Your task to perform on an android device: Open eBay Image 0: 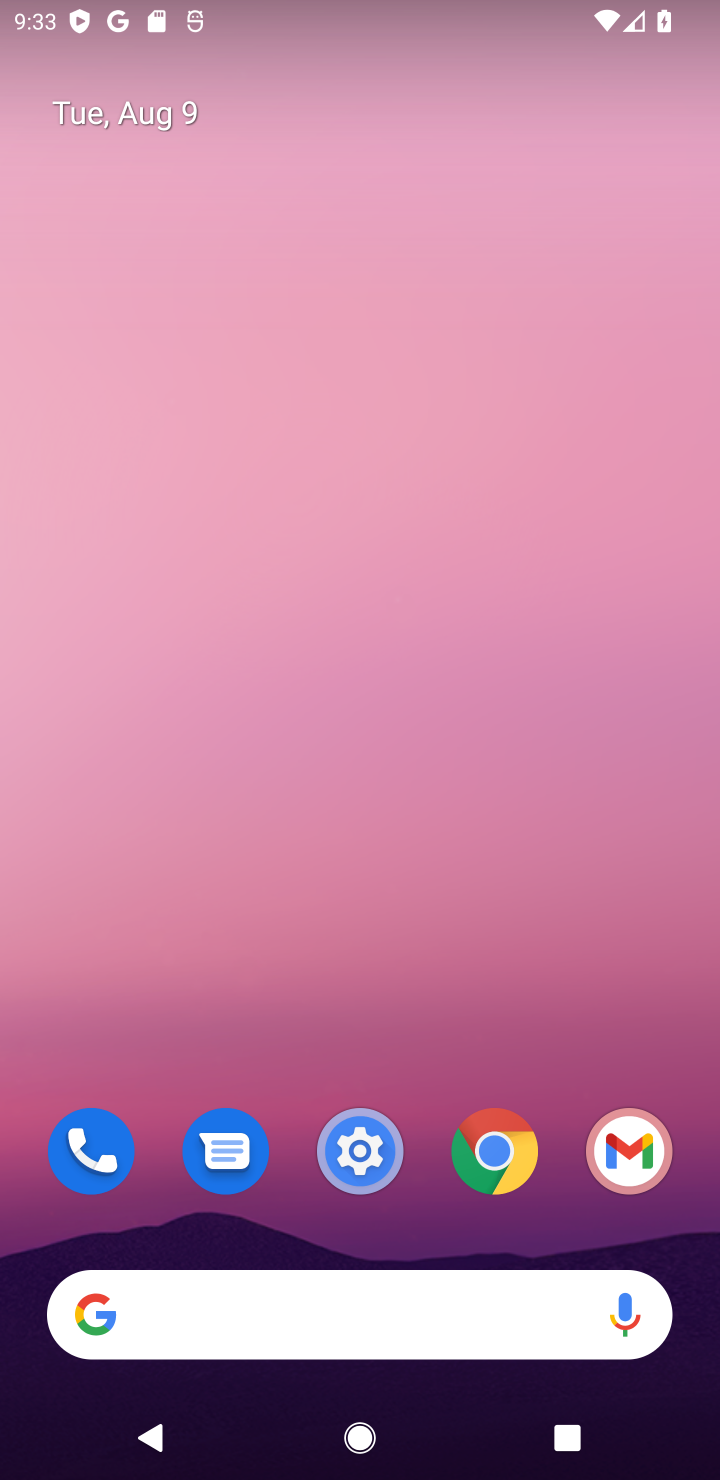
Step 0: click (467, 1150)
Your task to perform on an android device: Open eBay Image 1: 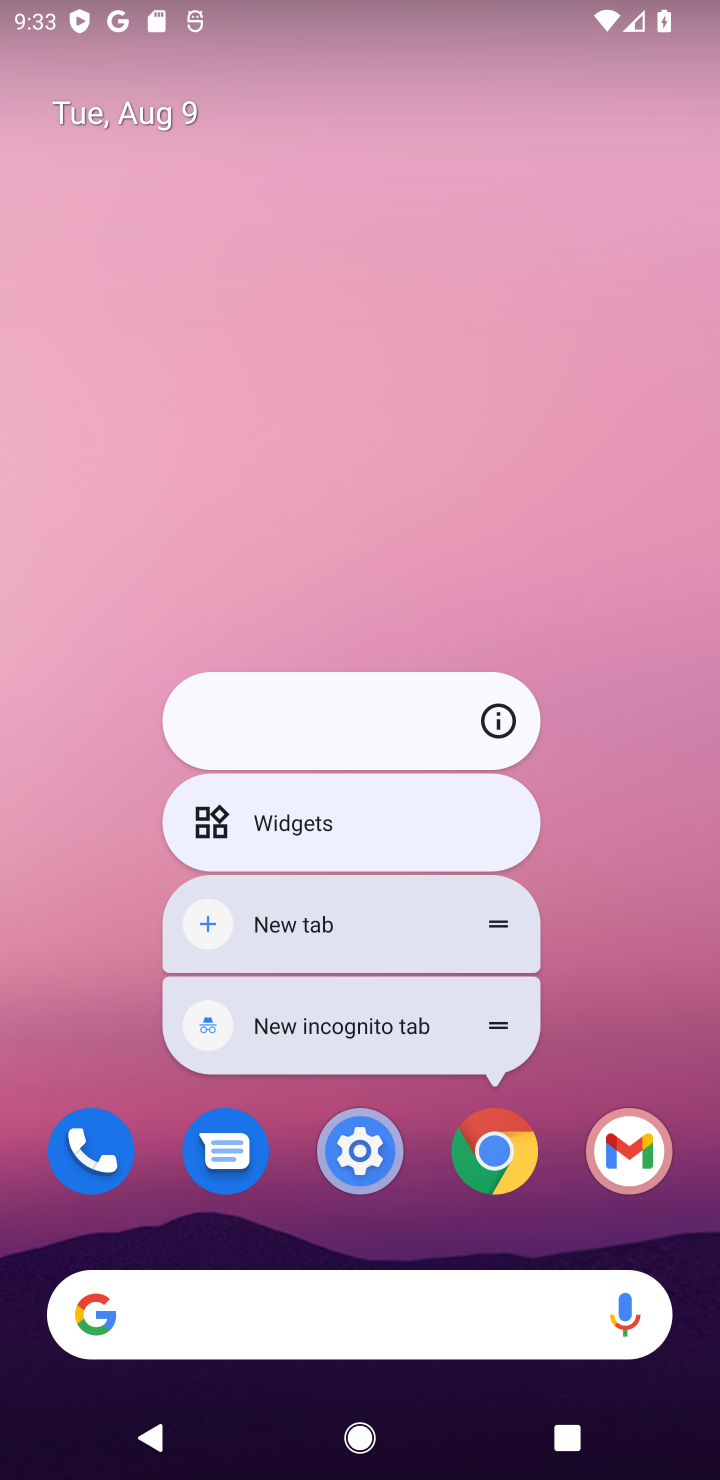
Step 1: click (470, 1163)
Your task to perform on an android device: Open eBay Image 2: 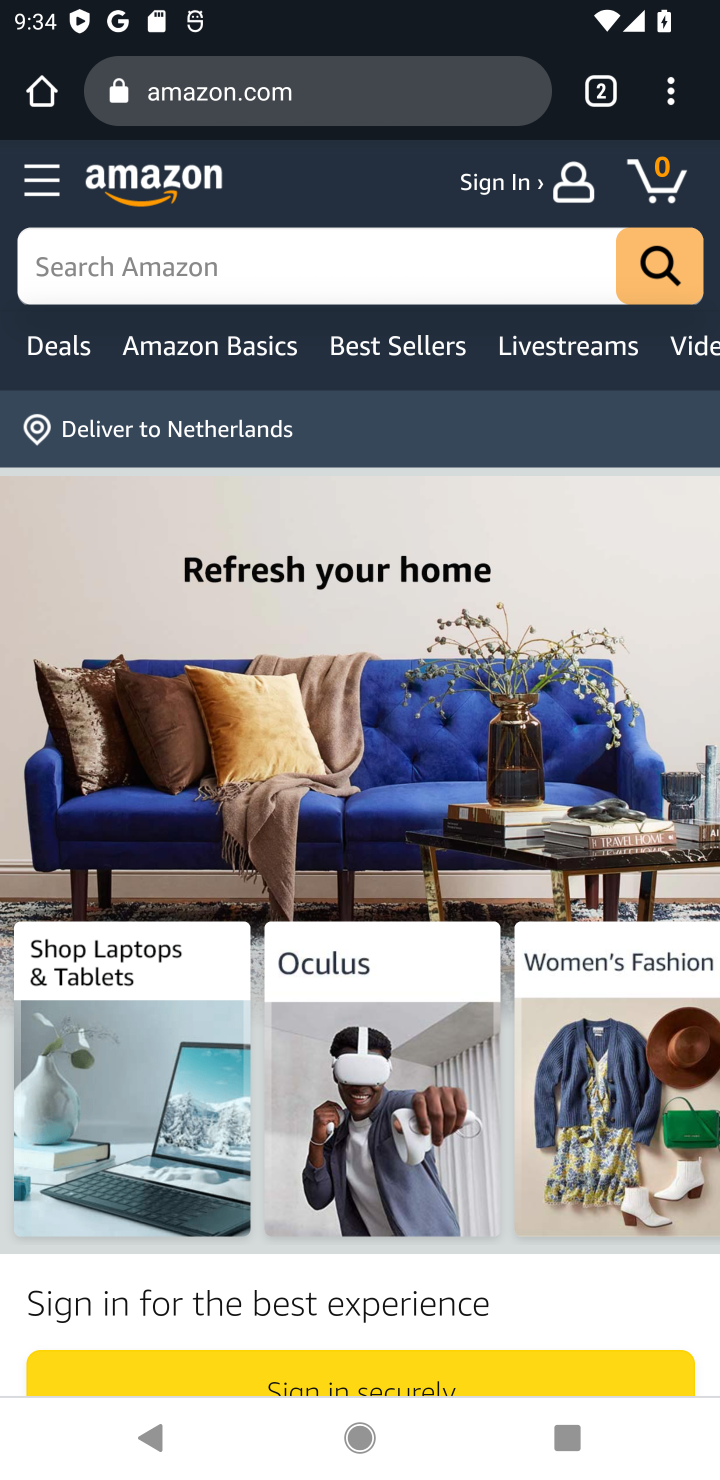
Step 2: click (660, 89)
Your task to perform on an android device: Open eBay Image 3: 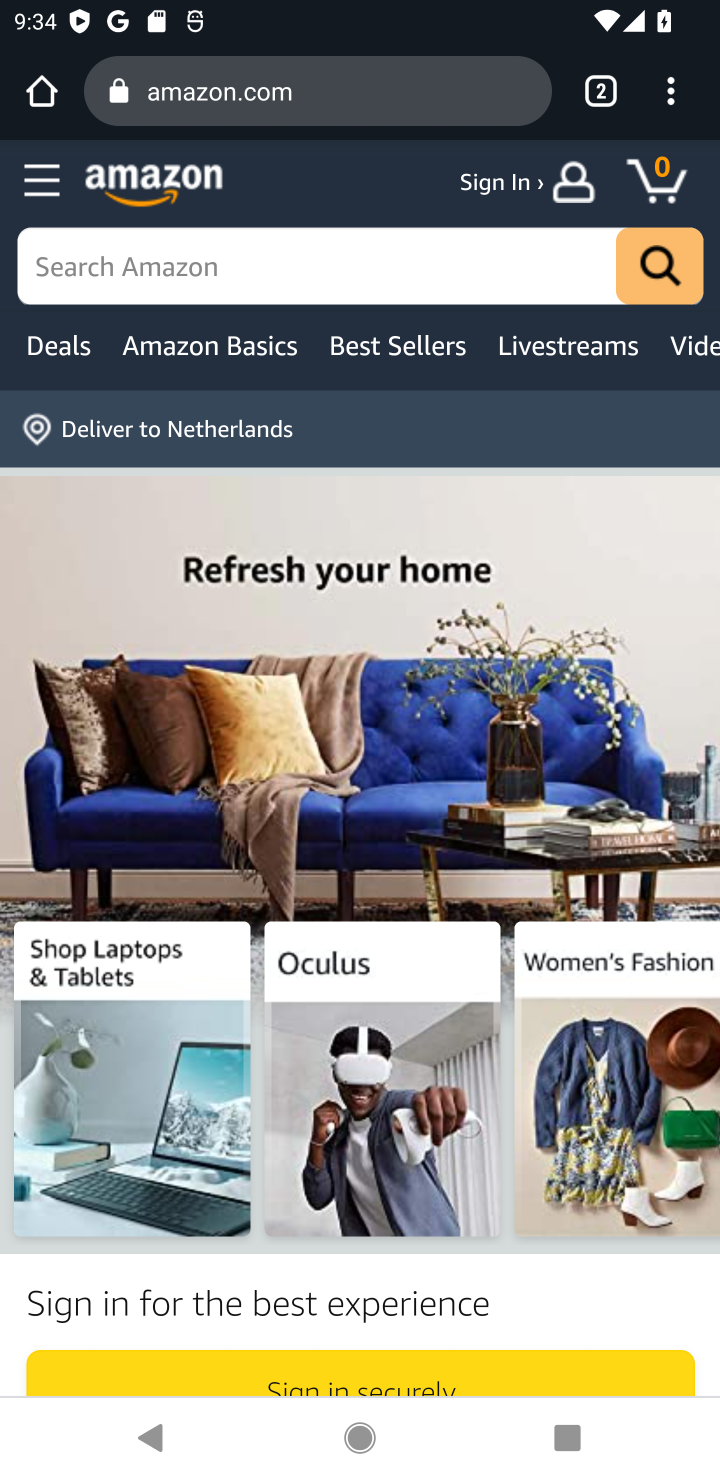
Step 3: click (584, 102)
Your task to perform on an android device: Open eBay Image 4: 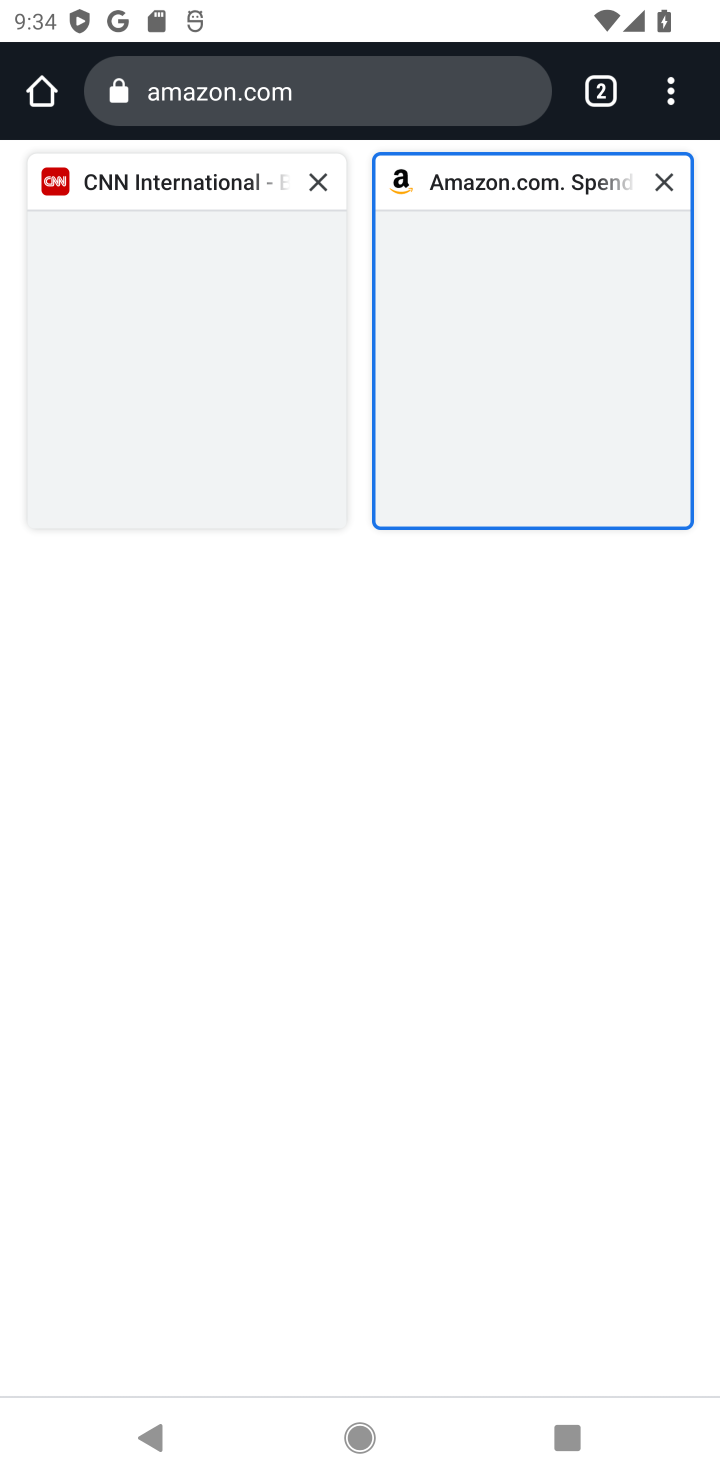
Step 4: click (601, 96)
Your task to perform on an android device: Open eBay Image 5: 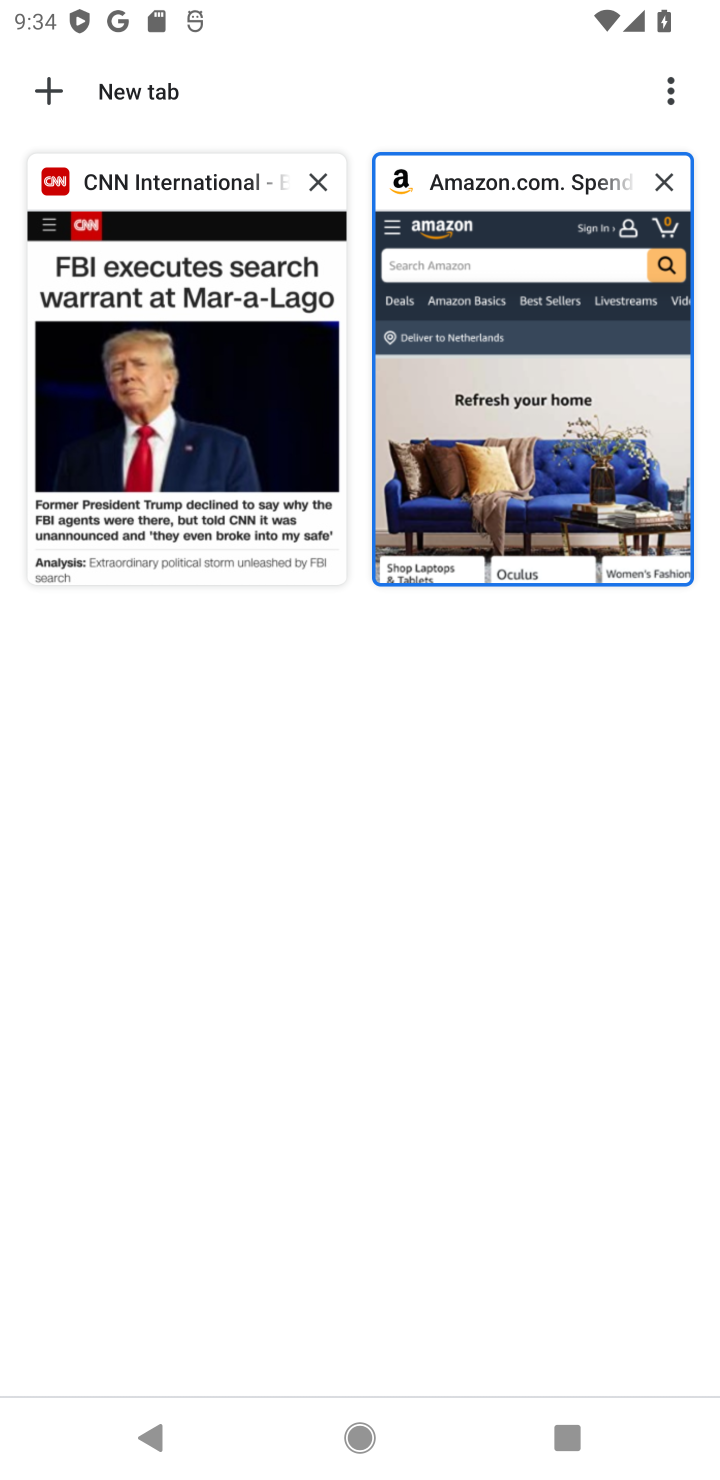
Step 5: click (49, 85)
Your task to perform on an android device: Open eBay Image 6: 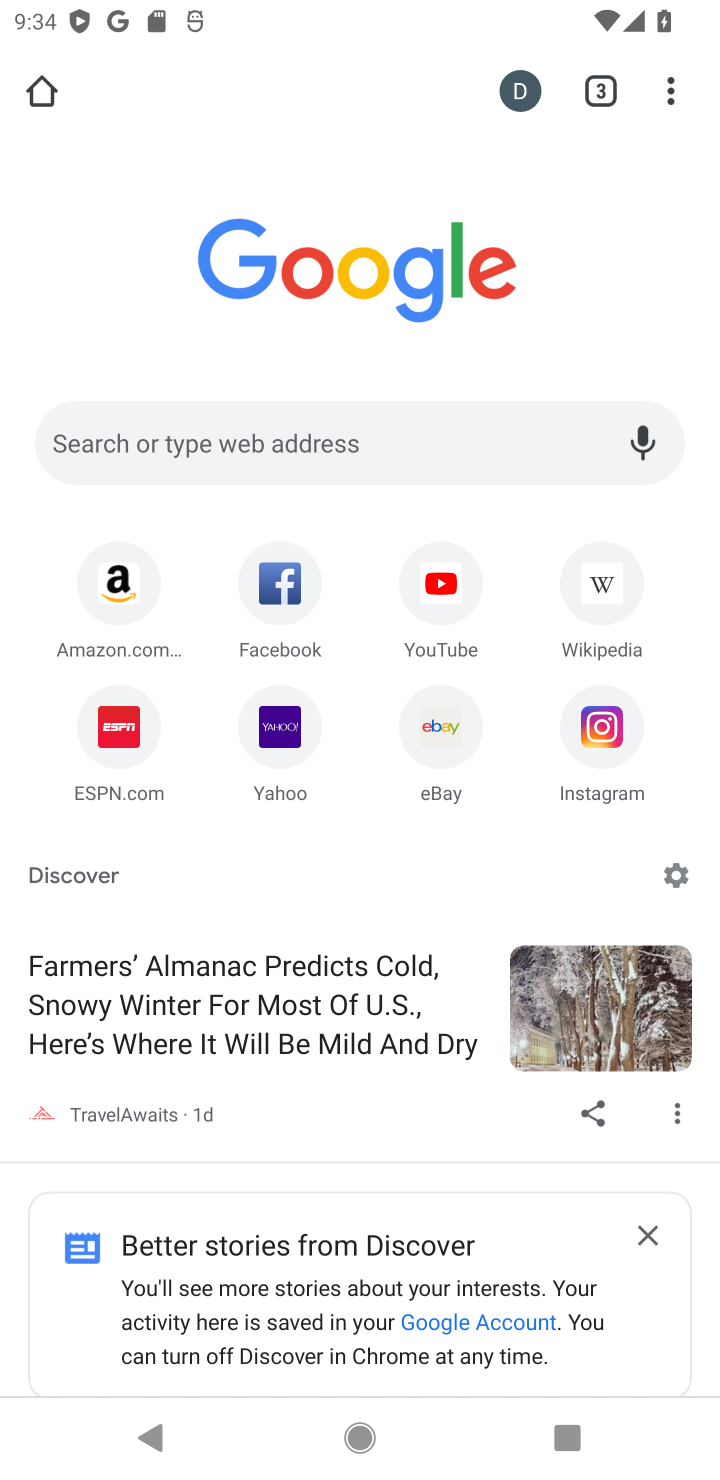
Step 6: click (426, 751)
Your task to perform on an android device: Open eBay Image 7: 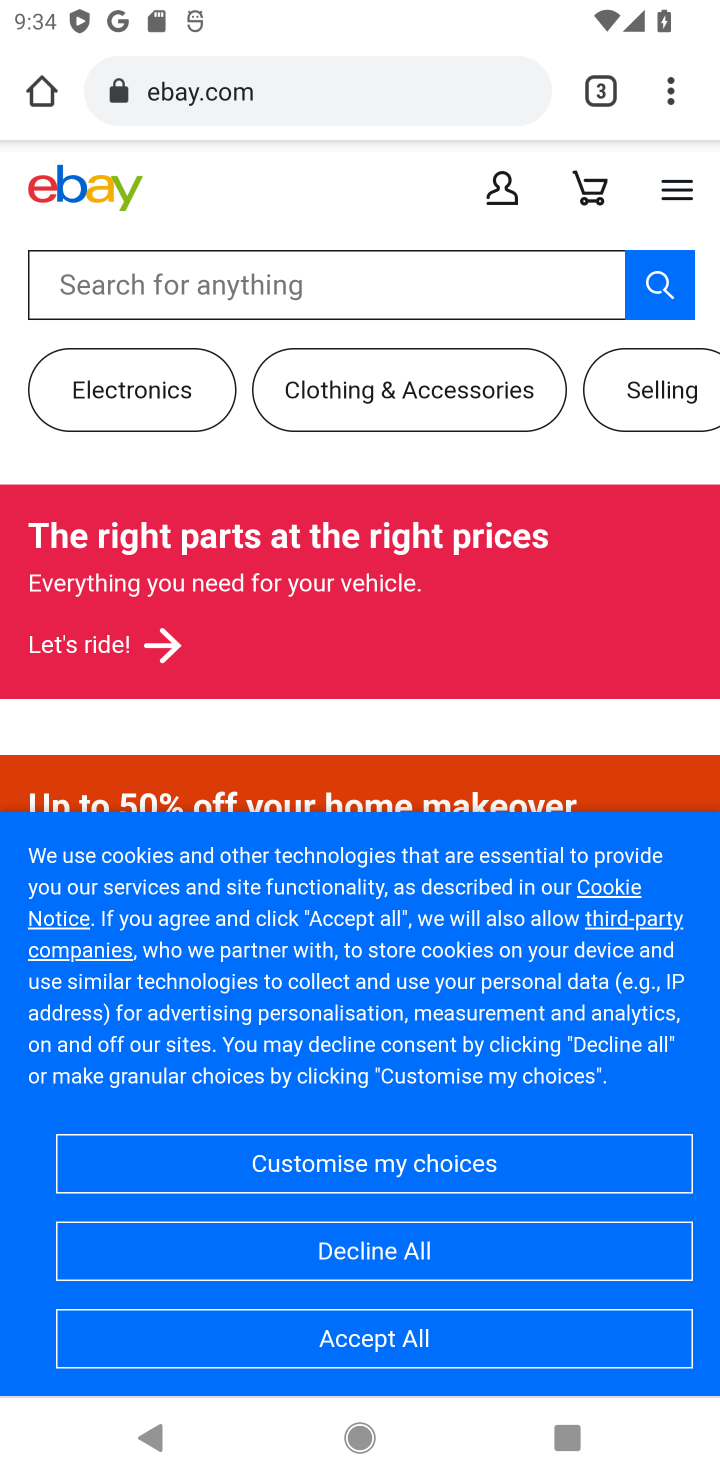
Step 7: task complete